Your task to perform on an android device: Is it going to rain today? Image 0: 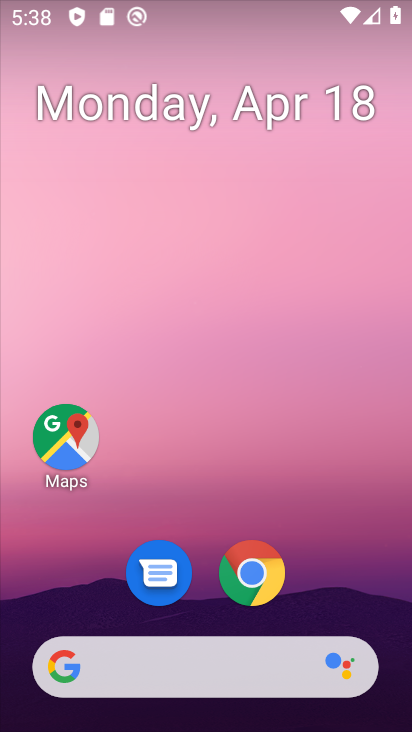
Step 0: drag from (312, 263) to (2, 225)
Your task to perform on an android device: Is it going to rain today? Image 1: 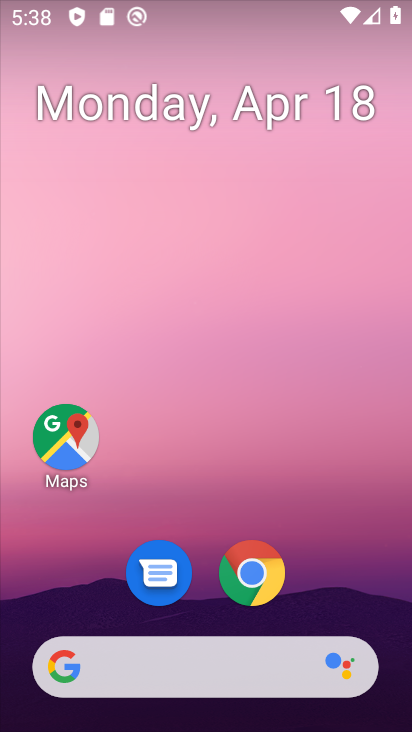
Step 1: drag from (204, 599) to (393, 242)
Your task to perform on an android device: Is it going to rain today? Image 2: 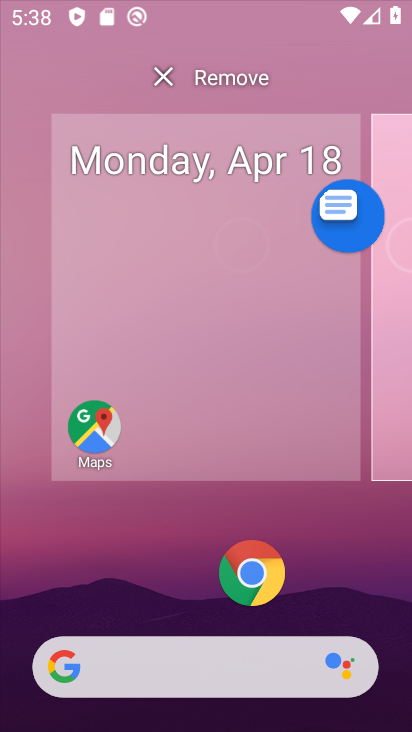
Step 2: click (244, 324)
Your task to perform on an android device: Is it going to rain today? Image 3: 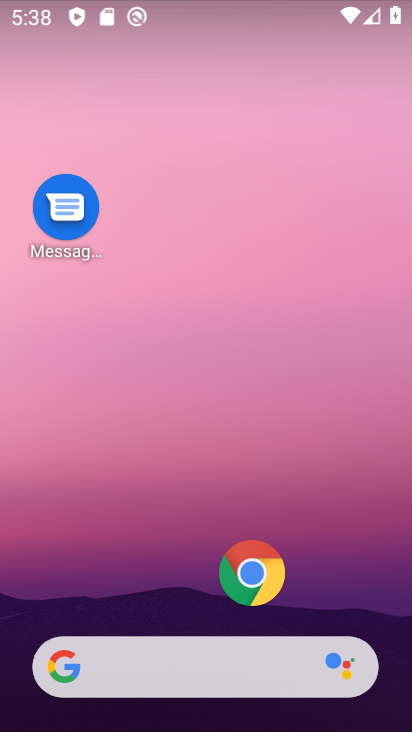
Step 3: drag from (178, 597) to (320, 35)
Your task to perform on an android device: Is it going to rain today? Image 4: 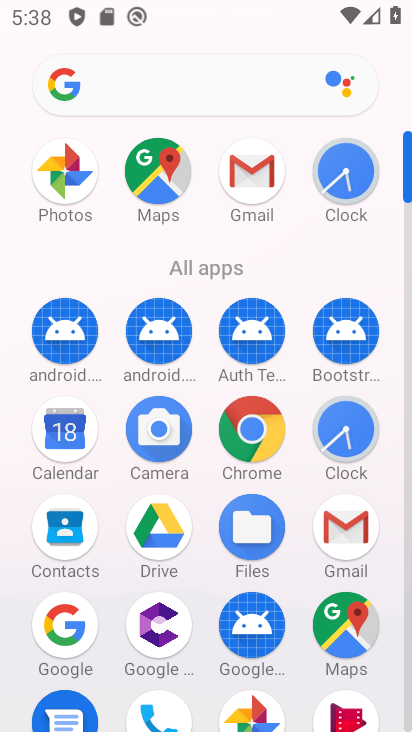
Step 4: click (193, 94)
Your task to perform on an android device: Is it going to rain today? Image 5: 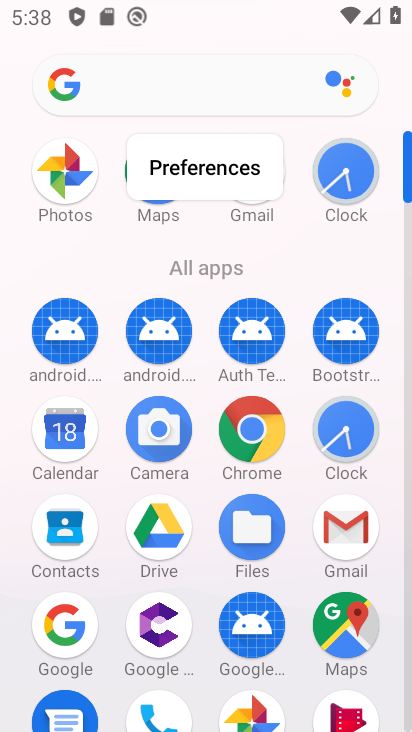
Step 5: click (194, 95)
Your task to perform on an android device: Is it going to rain today? Image 6: 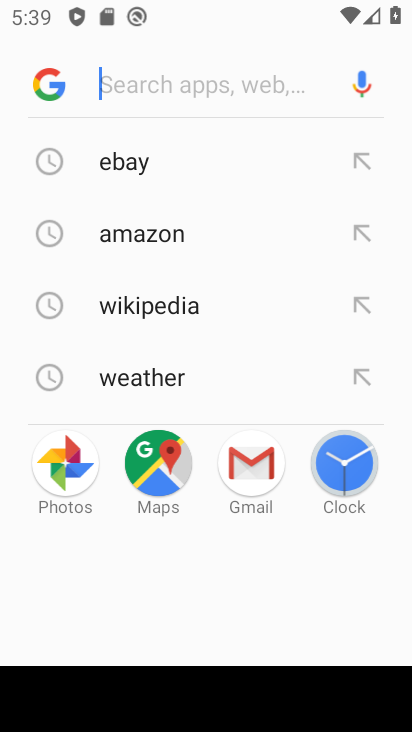
Step 6: type "weather"
Your task to perform on an android device: Is it going to rain today? Image 7: 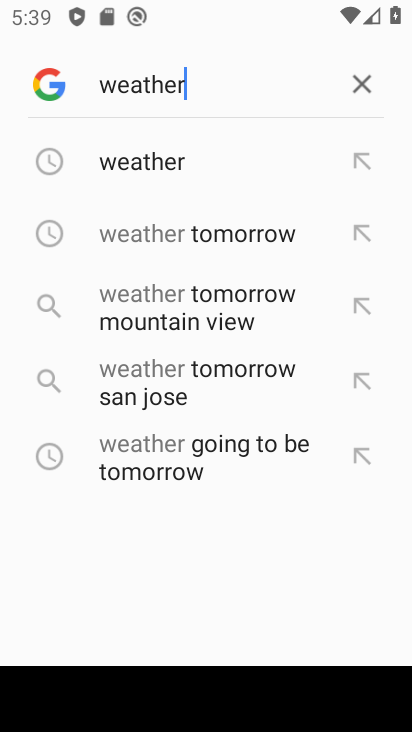
Step 7: click (193, 169)
Your task to perform on an android device: Is it going to rain today? Image 8: 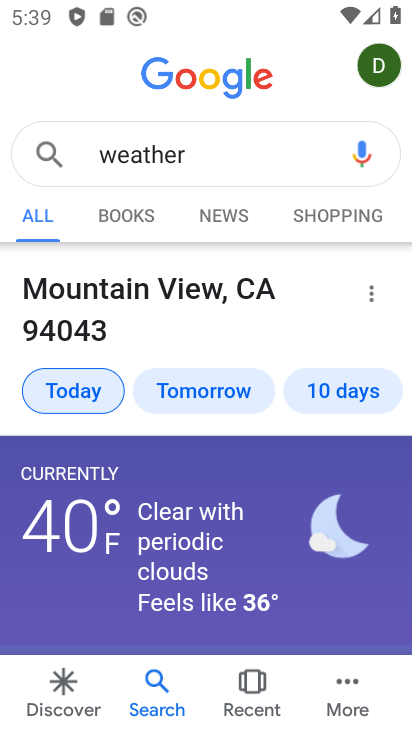
Step 8: click (207, 386)
Your task to perform on an android device: Is it going to rain today? Image 9: 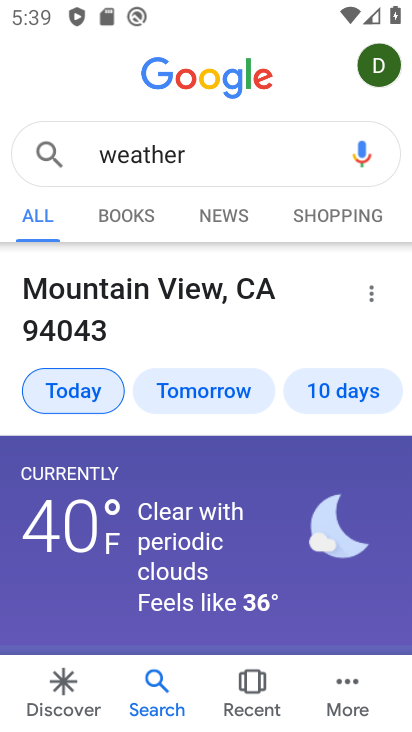
Step 9: task complete